Your task to perform on an android device: change the clock display to digital Image 0: 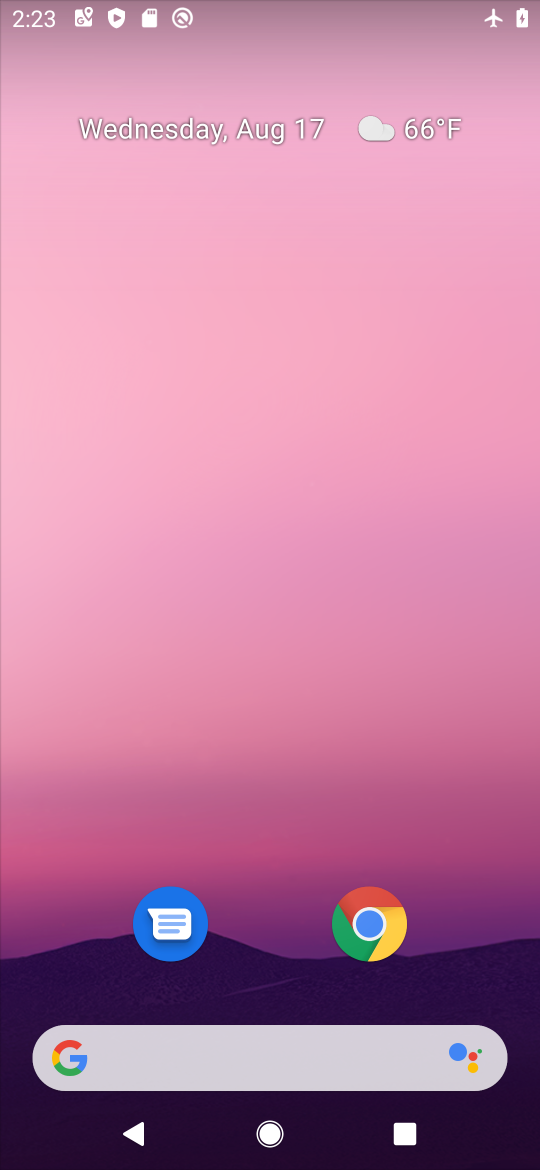
Step 0: drag from (226, 1071) to (273, 317)
Your task to perform on an android device: change the clock display to digital Image 1: 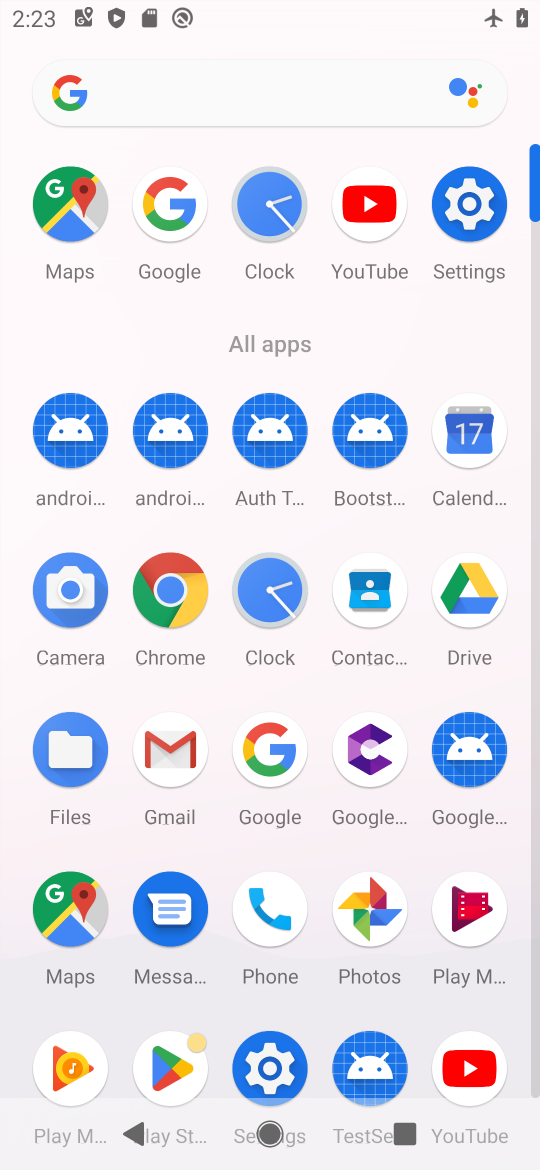
Step 1: click (268, 202)
Your task to perform on an android device: change the clock display to digital Image 2: 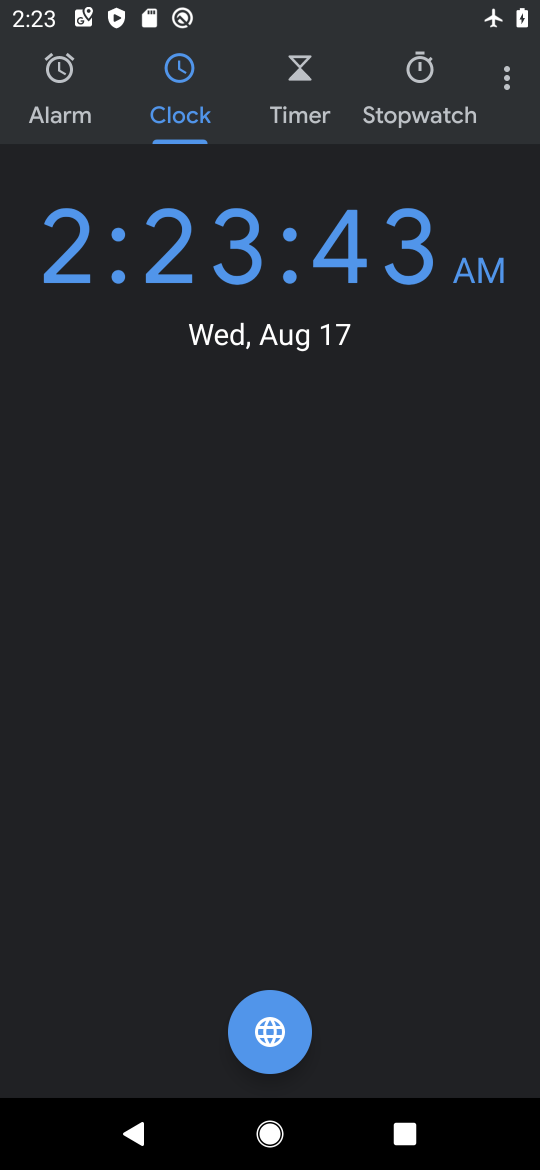
Step 2: click (510, 80)
Your task to perform on an android device: change the clock display to digital Image 3: 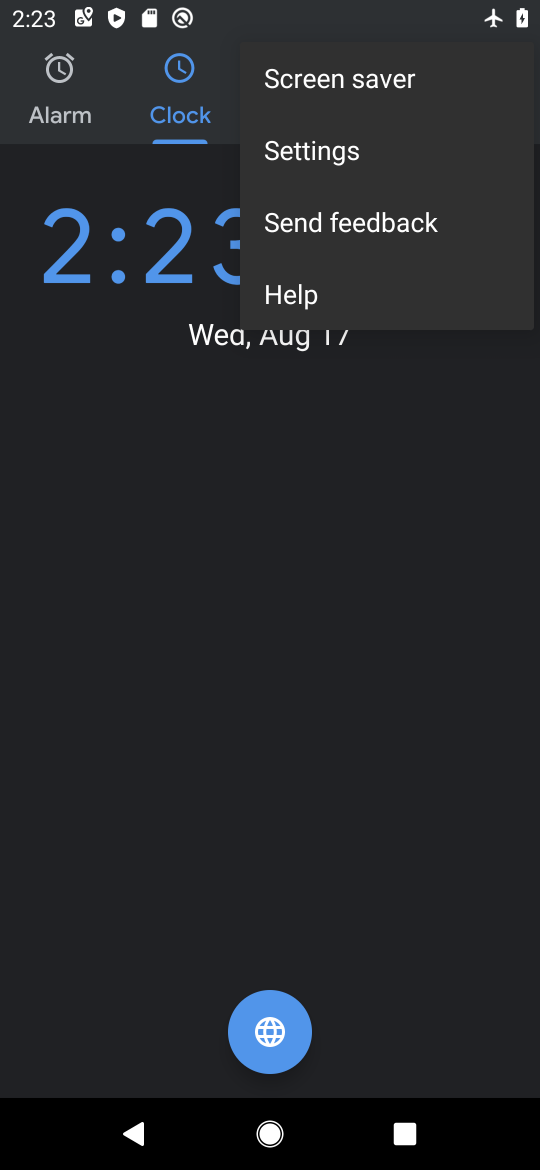
Step 3: click (328, 155)
Your task to perform on an android device: change the clock display to digital Image 4: 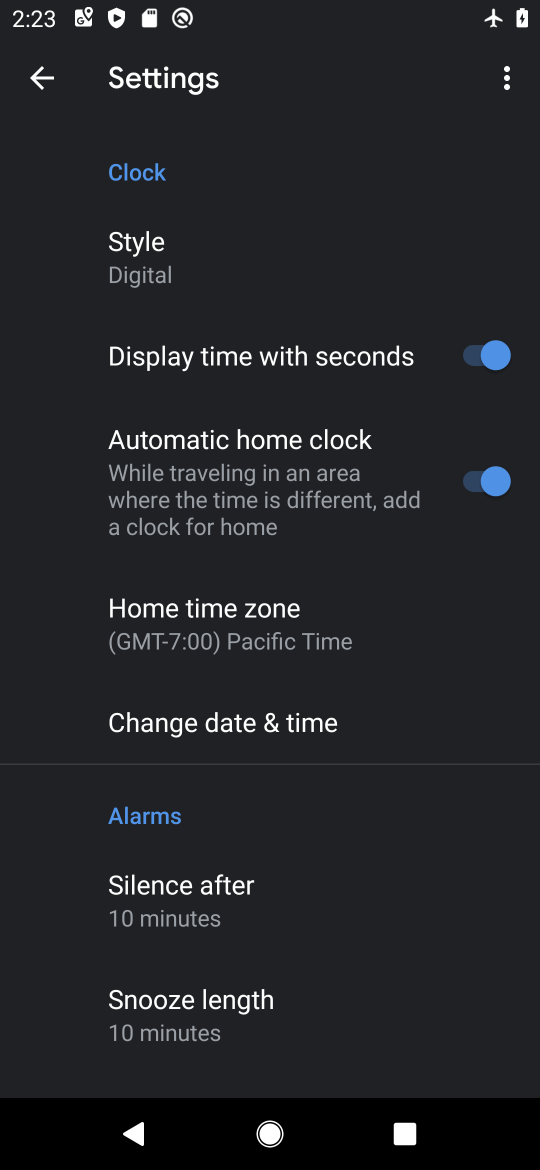
Step 4: click (172, 252)
Your task to perform on an android device: change the clock display to digital Image 5: 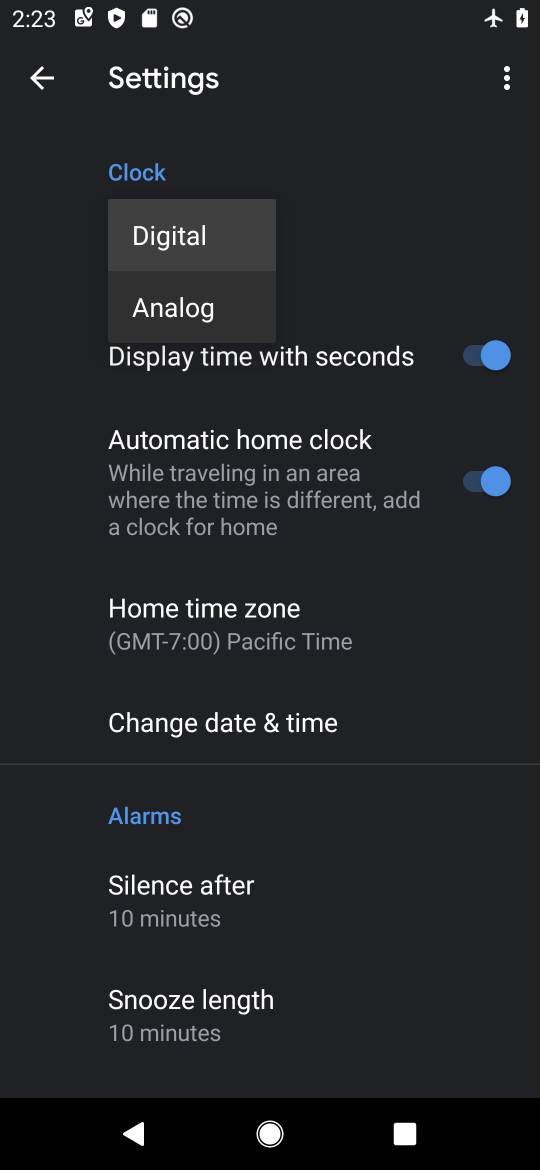
Step 5: click (172, 252)
Your task to perform on an android device: change the clock display to digital Image 6: 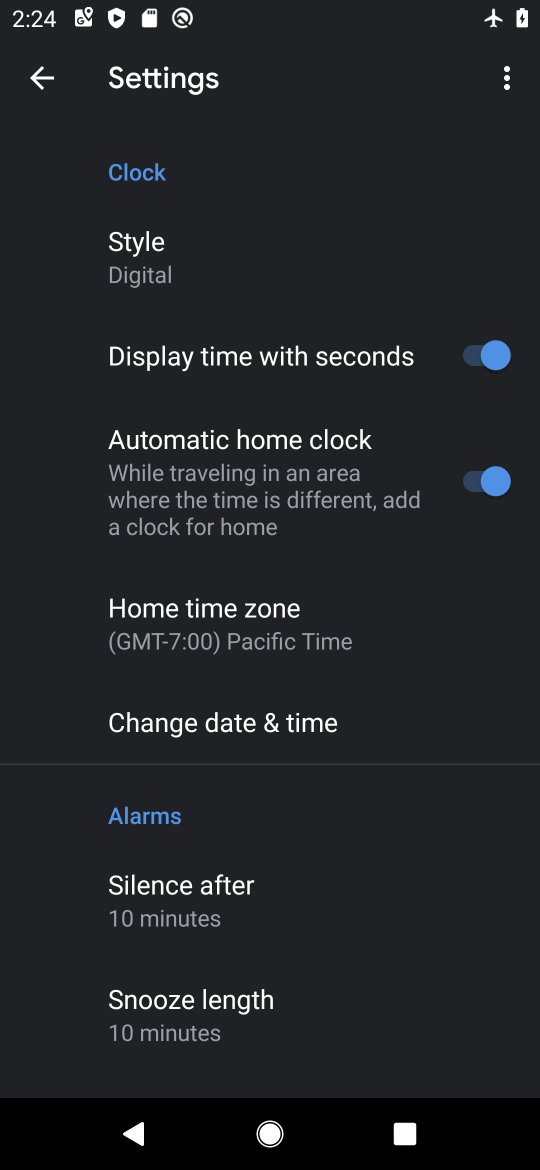
Step 6: task complete